Your task to perform on an android device: turn on sleep mode Image 0: 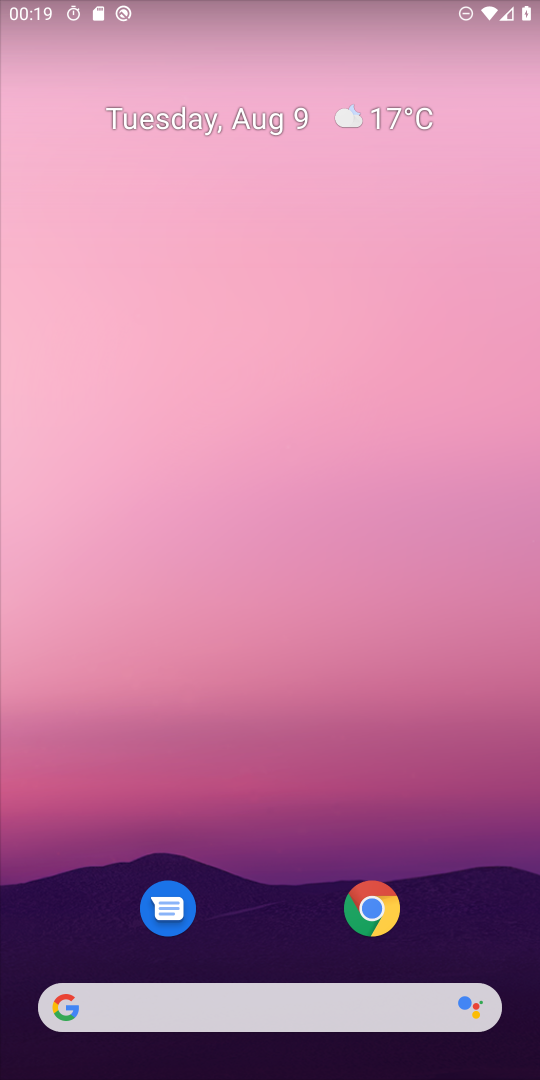
Step 0: drag from (482, 918) to (411, 84)
Your task to perform on an android device: turn on sleep mode Image 1: 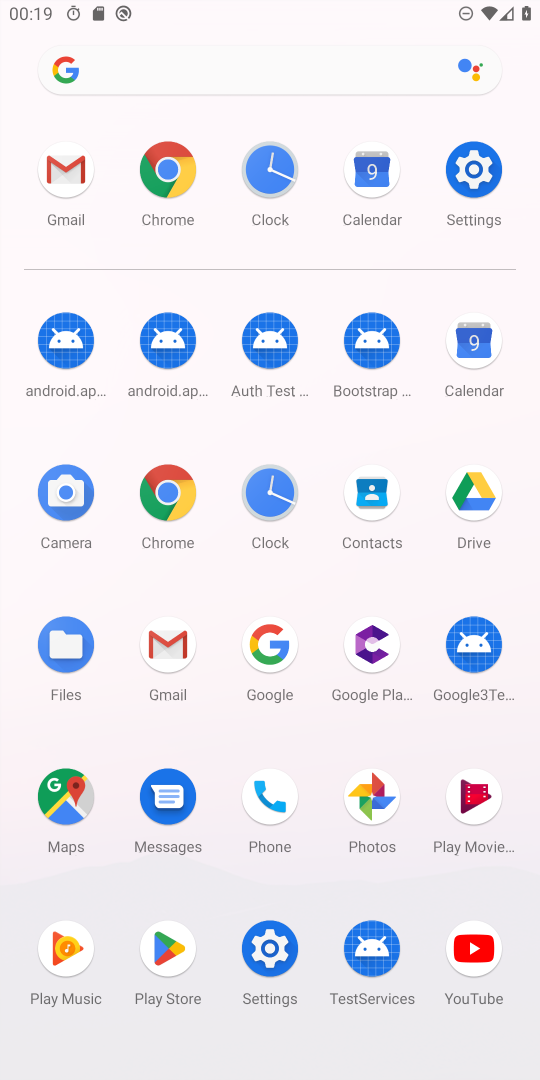
Step 1: click (480, 176)
Your task to perform on an android device: turn on sleep mode Image 2: 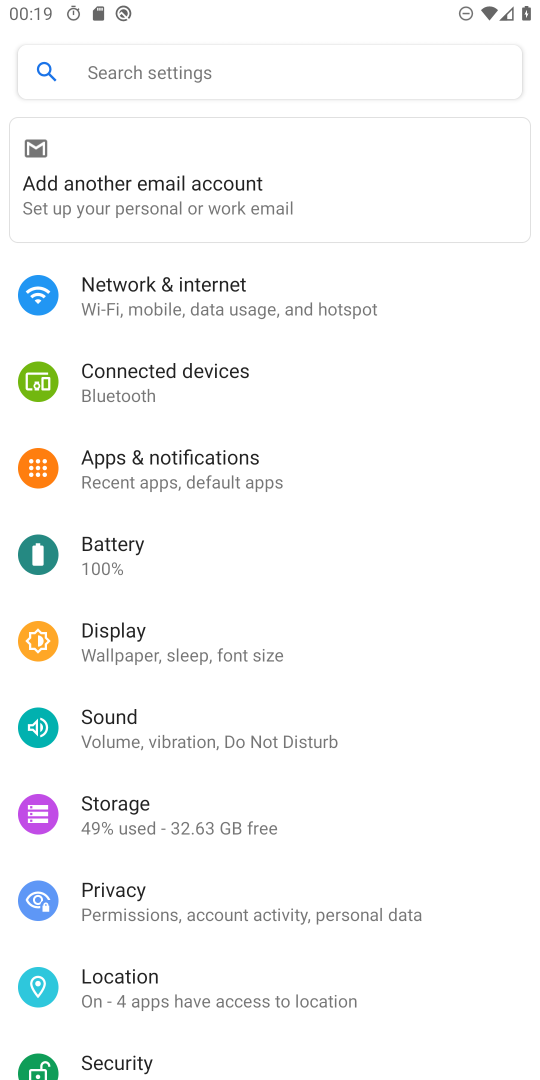
Step 2: click (281, 657)
Your task to perform on an android device: turn on sleep mode Image 3: 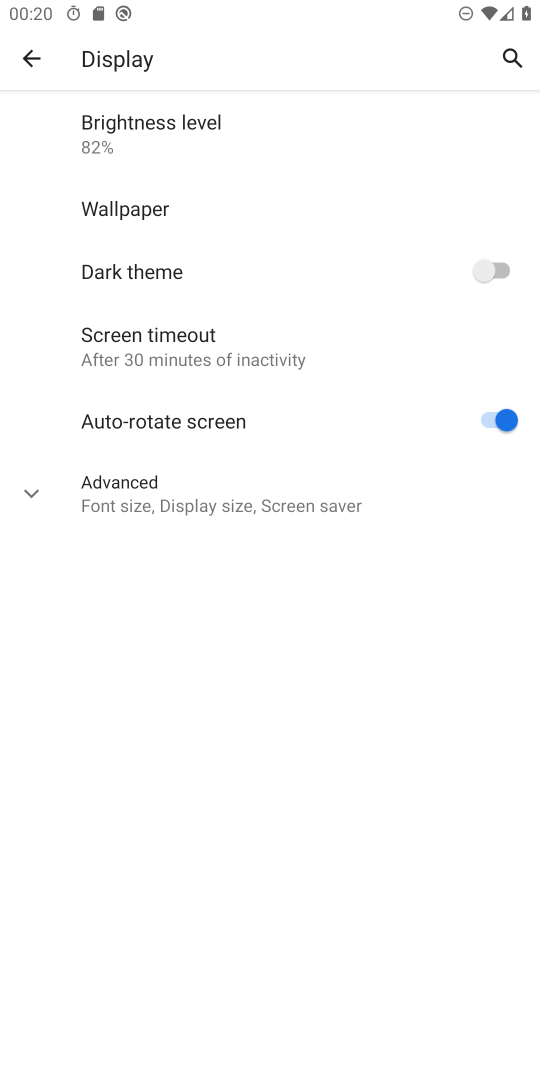
Step 3: click (371, 514)
Your task to perform on an android device: turn on sleep mode Image 4: 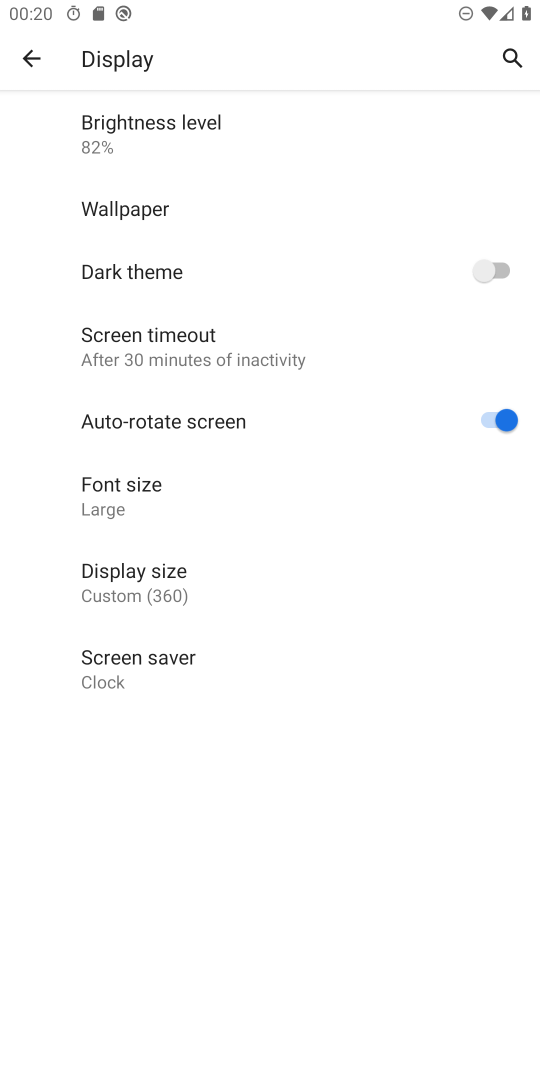
Step 4: task complete